Your task to perform on an android device: check the backup settings in the google photos Image 0: 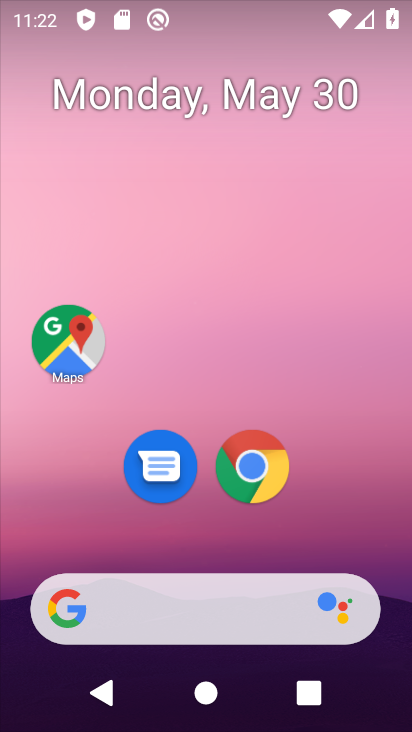
Step 0: drag from (234, 590) to (282, 2)
Your task to perform on an android device: check the backup settings in the google photos Image 1: 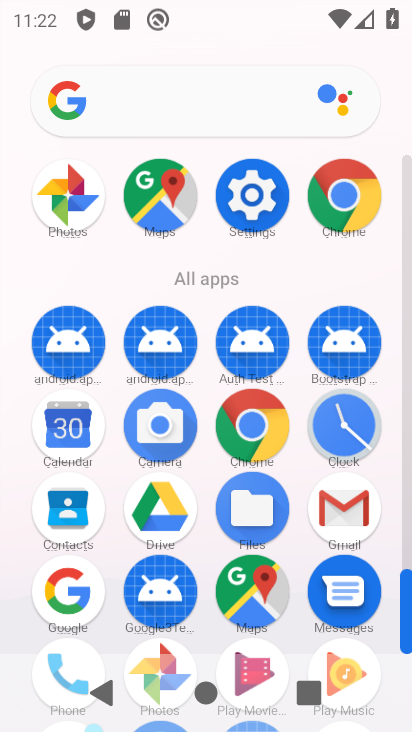
Step 1: drag from (194, 627) to (186, 275)
Your task to perform on an android device: check the backup settings in the google photos Image 2: 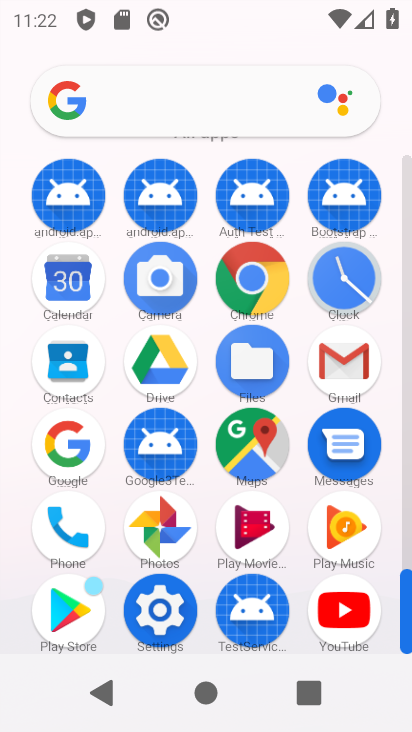
Step 2: click (165, 522)
Your task to perform on an android device: check the backup settings in the google photos Image 3: 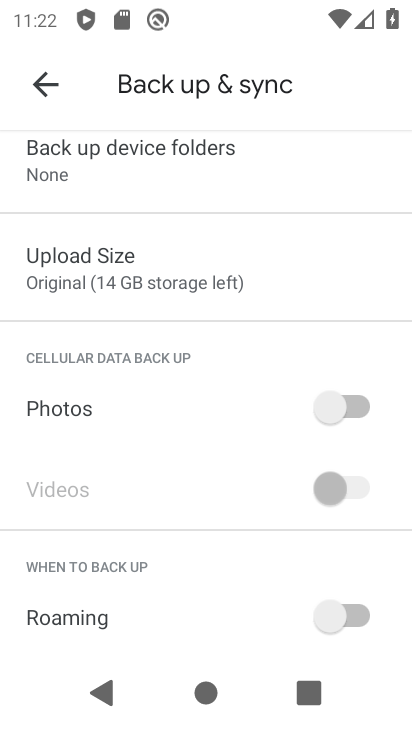
Step 3: task complete